Your task to perform on an android device: Turn on the flashlight Image 0: 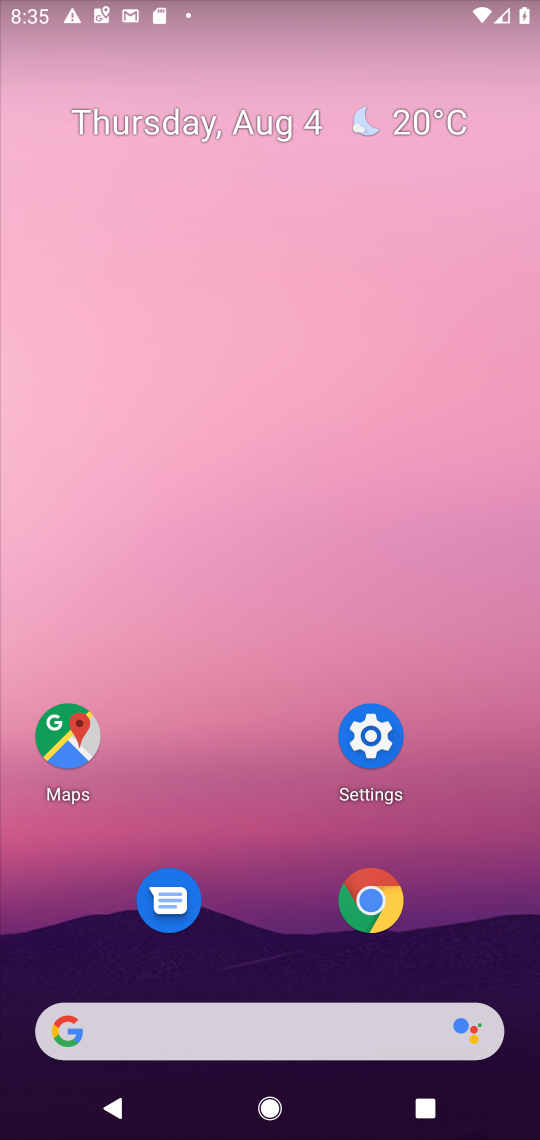
Step 0: drag from (281, 3) to (305, 658)
Your task to perform on an android device: Turn on the flashlight Image 1: 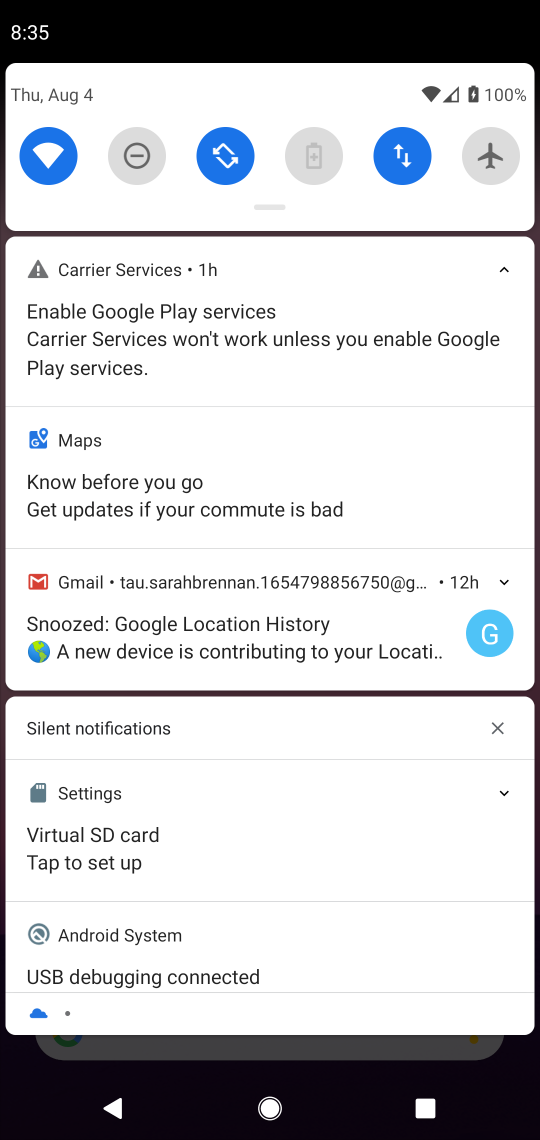
Step 1: task complete